Your task to perform on an android device: refresh tabs in the chrome app Image 0: 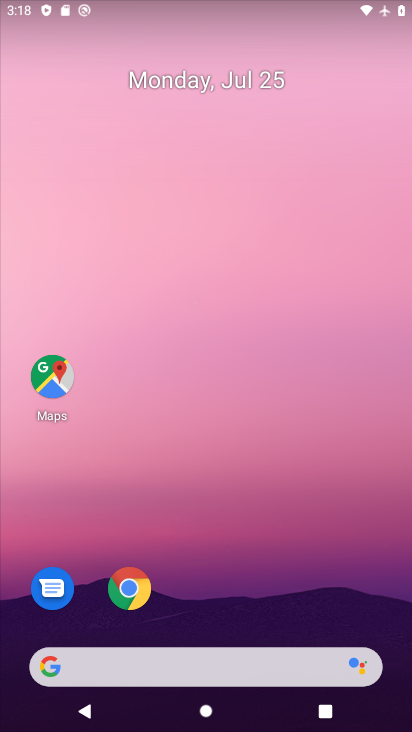
Step 0: click (129, 592)
Your task to perform on an android device: refresh tabs in the chrome app Image 1: 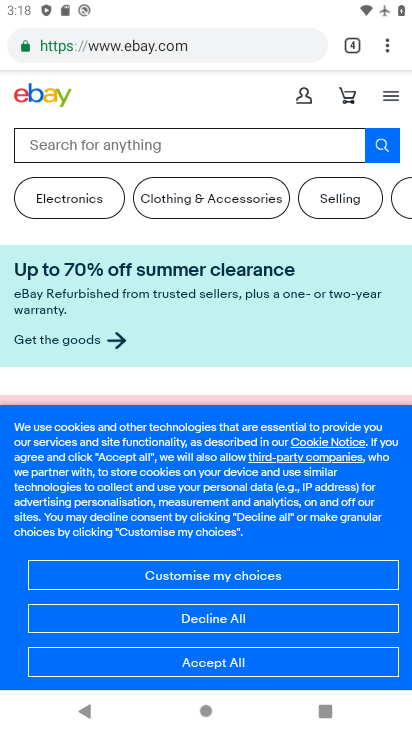
Step 1: click (387, 50)
Your task to perform on an android device: refresh tabs in the chrome app Image 2: 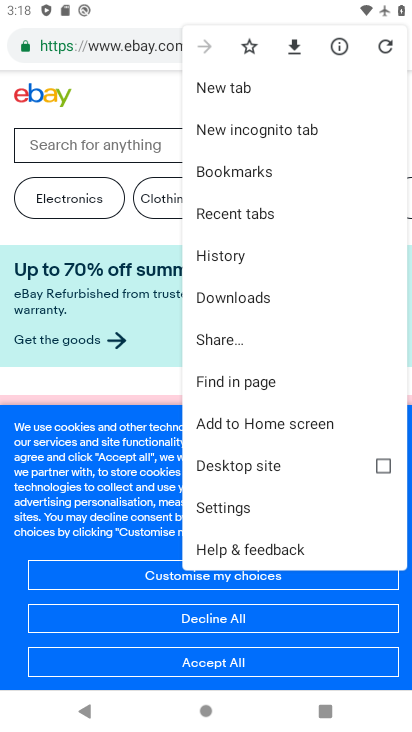
Step 2: click (386, 42)
Your task to perform on an android device: refresh tabs in the chrome app Image 3: 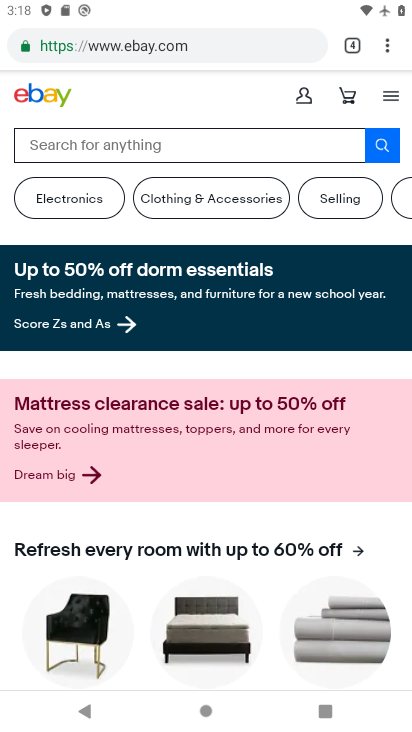
Step 3: click (386, 42)
Your task to perform on an android device: refresh tabs in the chrome app Image 4: 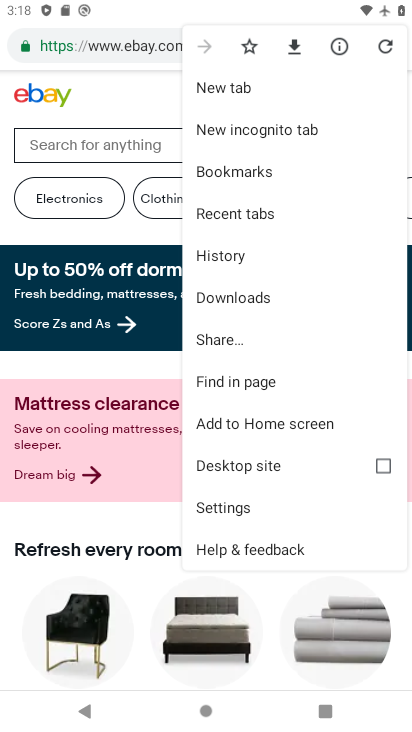
Step 4: task complete